Your task to perform on an android device: turn pop-ups off in chrome Image 0: 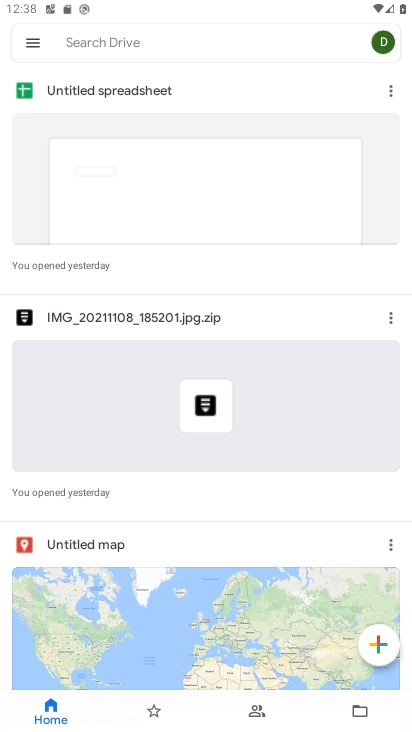
Step 0: press home button
Your task to perform on an android device: turn pop-ups off in chrome Image 1: 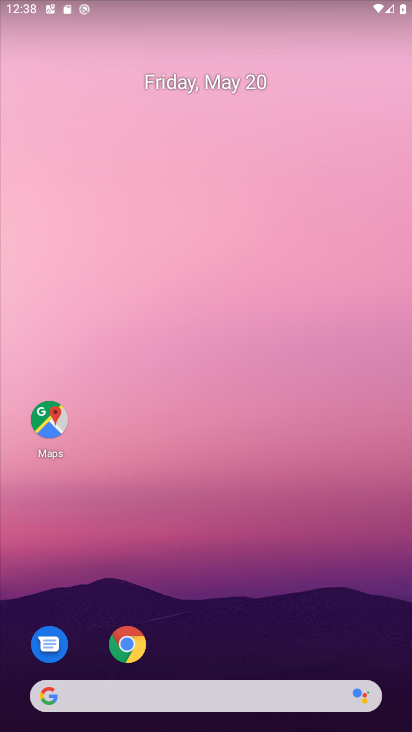
Step 1: click (121, 648)
Your task to perform on an android device: turn pop-ups off in chrome Image 2: 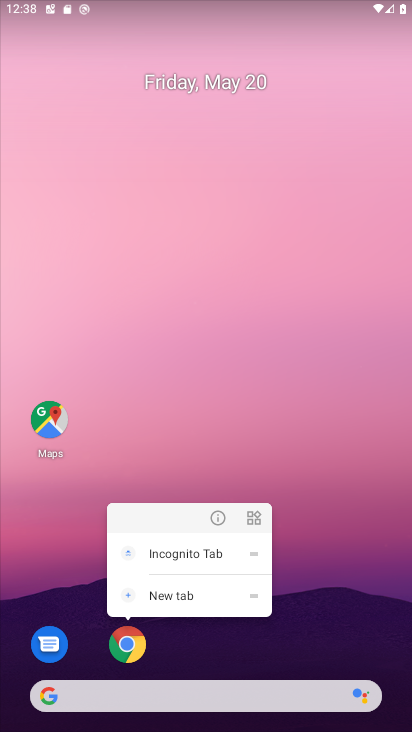
Step 2: click (121, 648)
Your task to perform on an android device: turn pop-ups off in chrome Image 3: 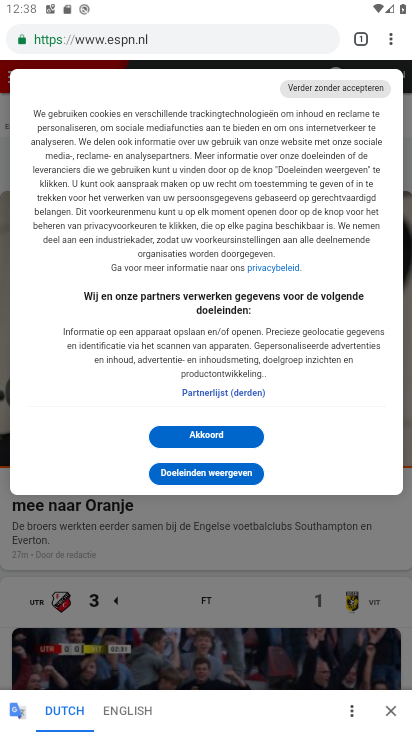
Step 3: click (392, 37)
Your task to perform on an android device: turn pop-ups off in chrome Image 4: 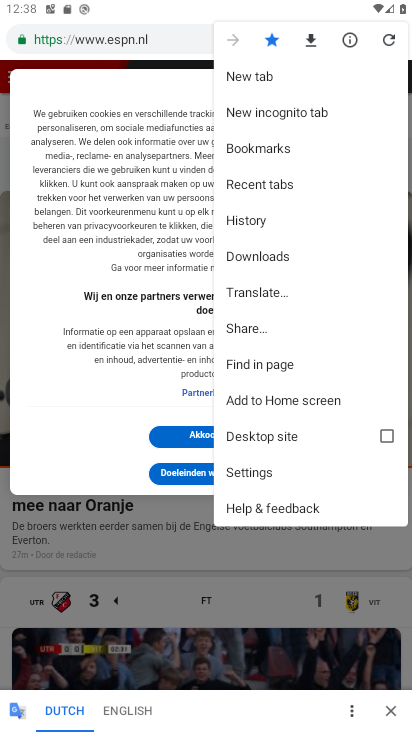
Step 4: click (251, 470)
Your task to perform on an android device: turn pop-ups off in chrome Image 5: 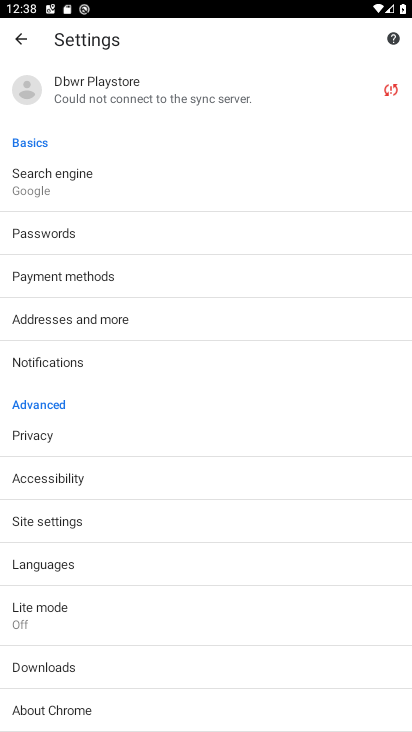
Step 5: drag from (81, 649) to (72, 353)
Your task to perform on an android device: turn pop-ups off in chrome Image 6: 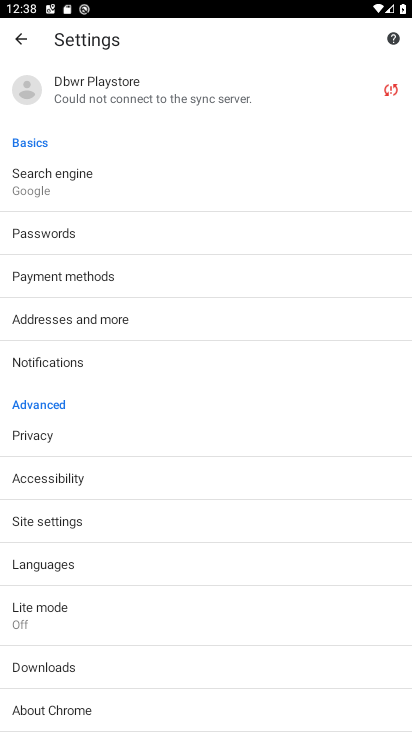
Step 6: click (48, 519)
Your task to perform on an android device: turn pop-ups off in chrome Image 7: 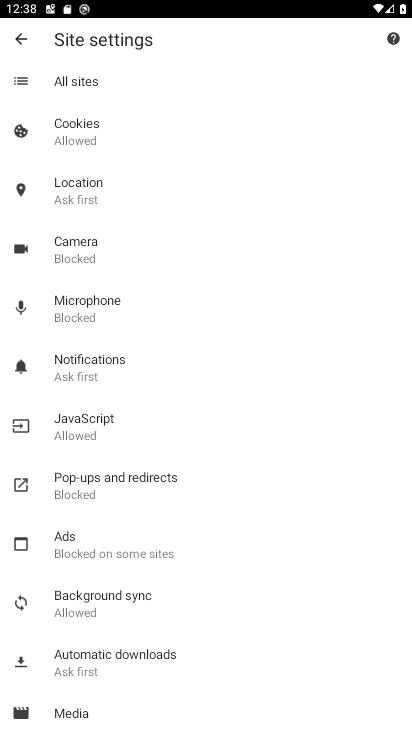
Step 7: click (87, 482)
Your task to perform on an android device: turn pop-ups off in chrome Image 8: 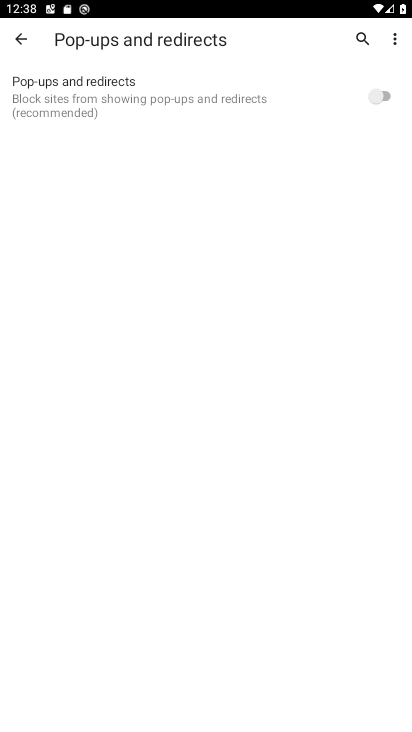
Step 8: task complete